Your task to perform on an android device: Open notification settings Image 0: 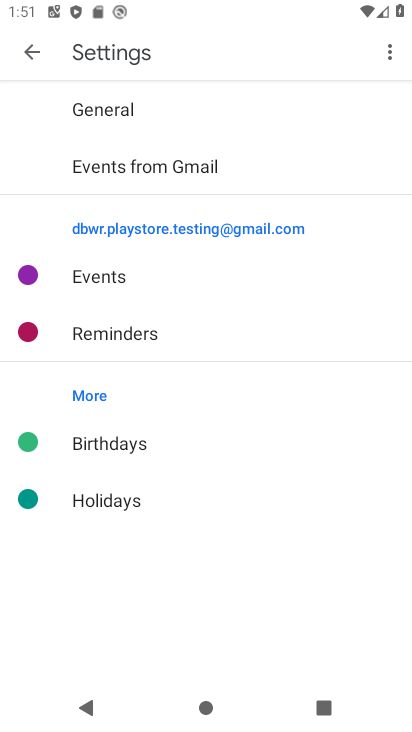
Step 0: press home button
Your task to perform on an android device: Open notification settings Image 1: 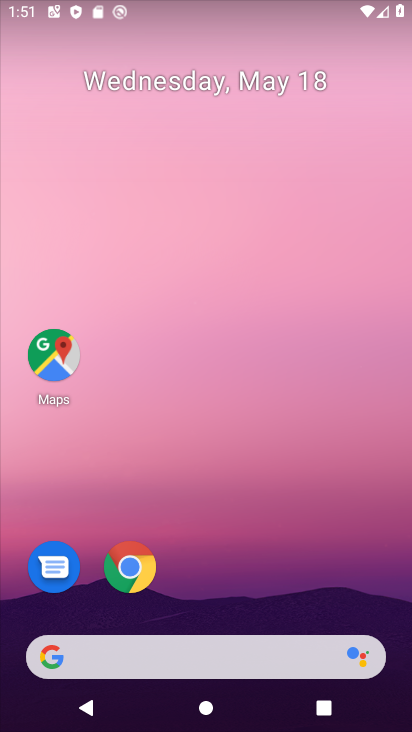
Step 1: drag from (295, 589) to (297, 182)
Your task to perform on an android device: Open notification settings Image 2: 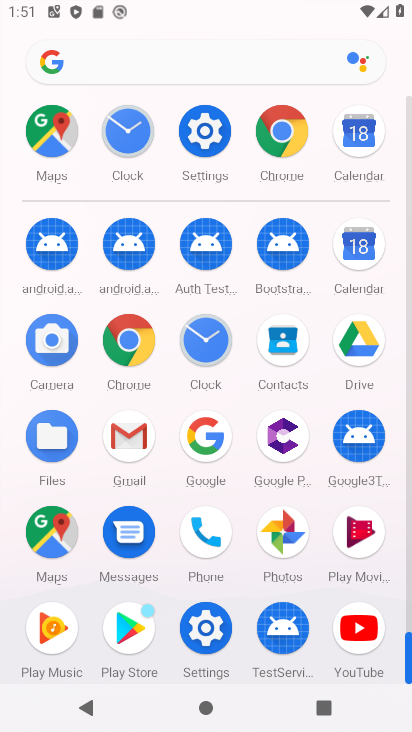
Step 2: click (207, 128)
Your task to perform on an android device: Open notification settings Image 3: 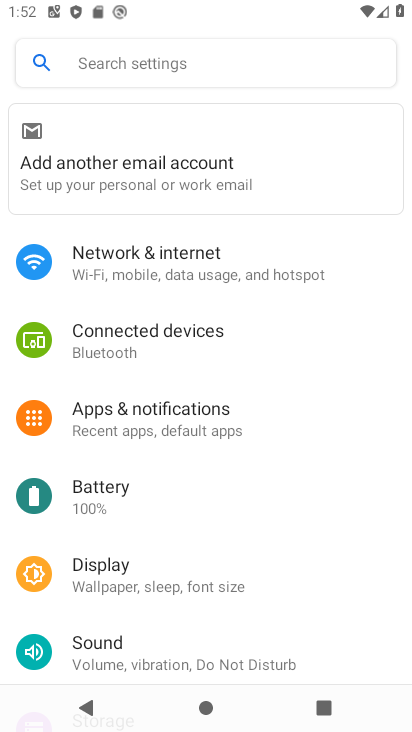
Step 3: click (187, 415)
Your task to perform on an android device: Open notification settings Image 4: 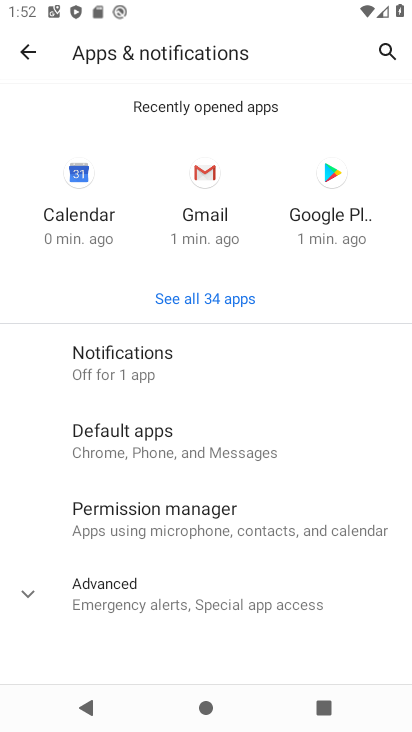
Step 4: click (178, 363)
Your task to perform on an android device: Open notification settings Image 5: 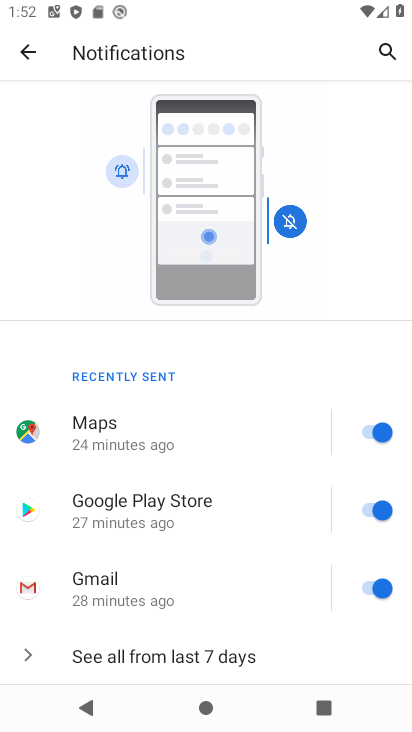
Step 5: task complete